Your task to perform on an android device: What is the recent news? Image 0: 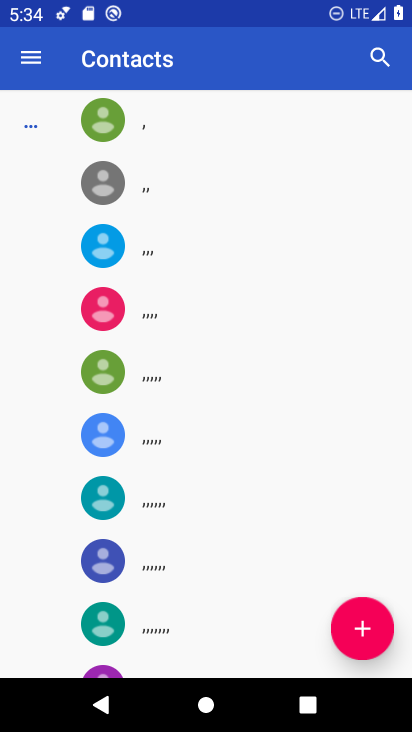
Step 0: press back button
Your task to perform on an android device: What is the recent news? Image 1: 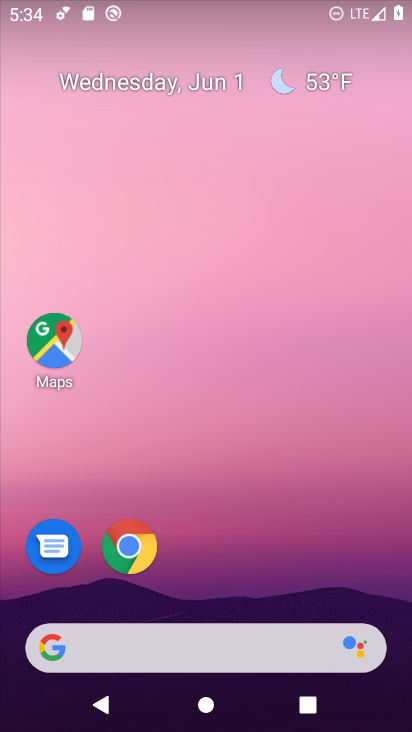
Step 1: drag from (329, 538) to (284, 10)
Your task to perform on an android device: What is the recent news? Image 2: 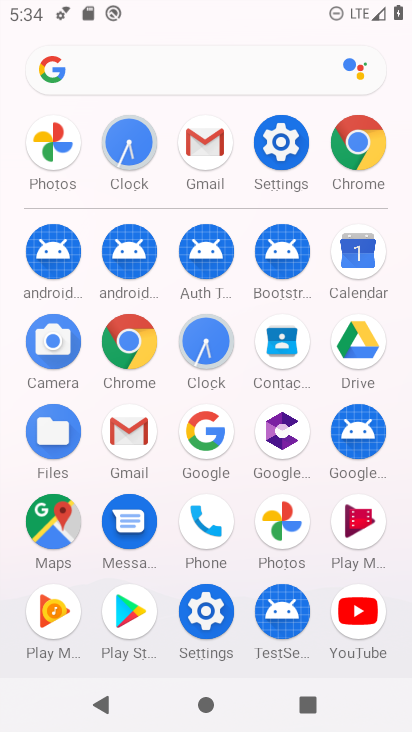
Step 2: click (124, 343)
Your task to perform on an android device: What is the recent news? Image 3: 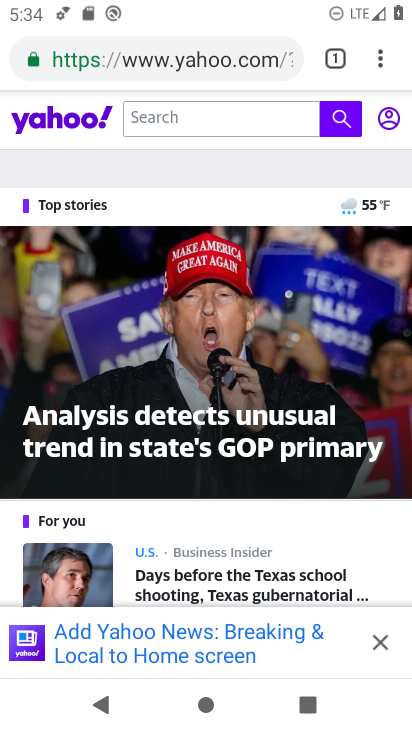
Step 3: click (178, 43)
Your task to perform on an android device: What is the recent news? Image 4: 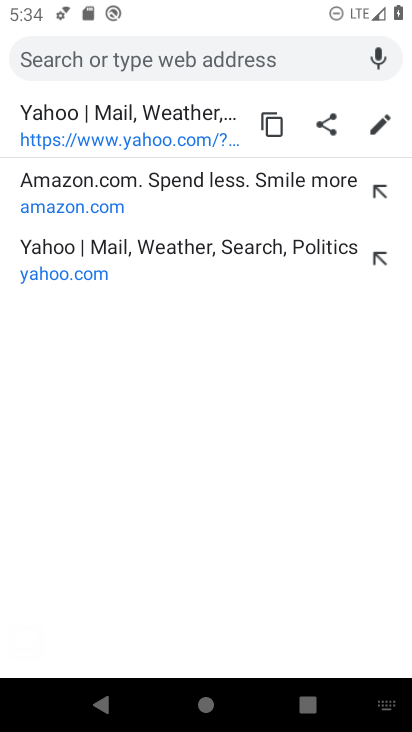
Step 4: type "What is the recent news?"
Your task to perform on an android device: What is the recent news? Image 5: 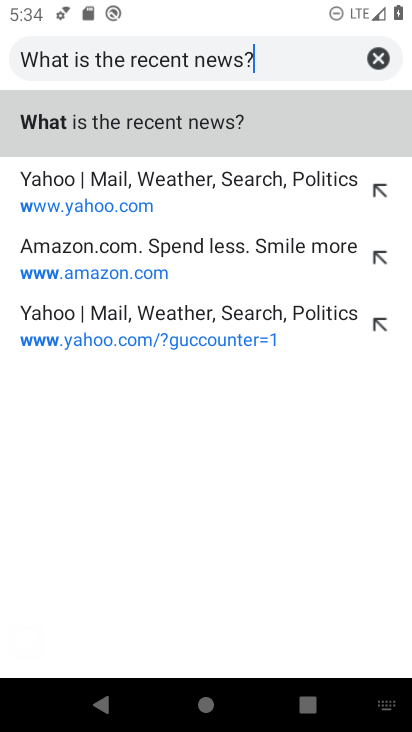
Step 5: type ""
Your task to perform on an android device: What is the recent news? Image 6: 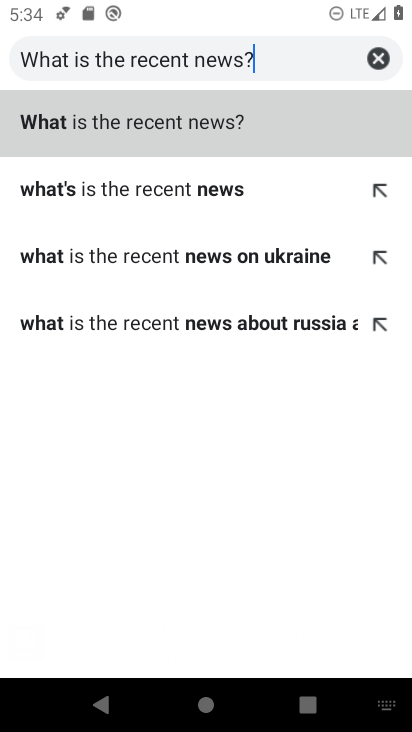
Step 6: click (225, 113)
Your task to perform on an android device: What is the recent news? Image 7: 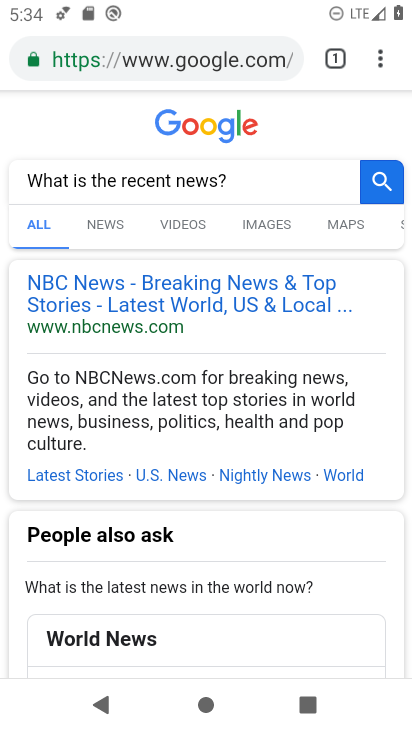
Step 7: click (98, 223)
Your task to perform on an android device: What is the recent news? Image 8: 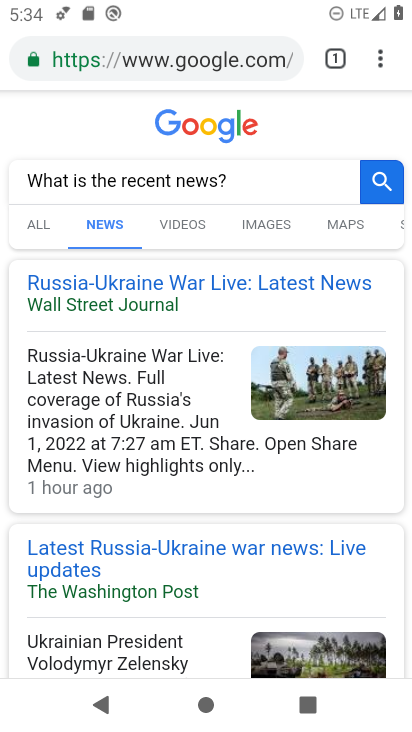
Step 8: task complete